Your task to perform on an android device: When is my next appointment? Image 0: 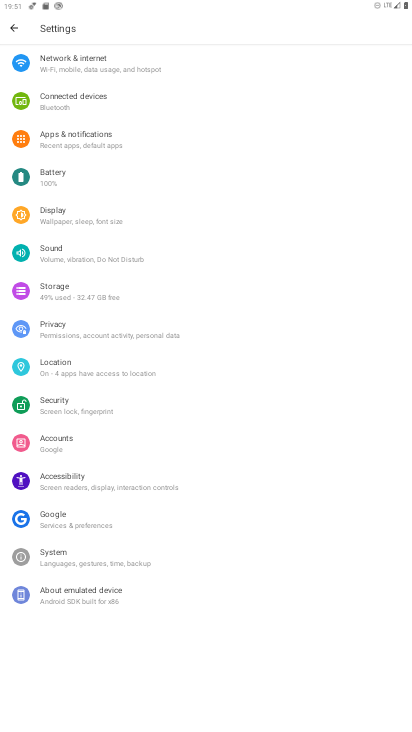
Step 0: press home button
Your task to perform on an android device: When is my next appointment? Image 1: 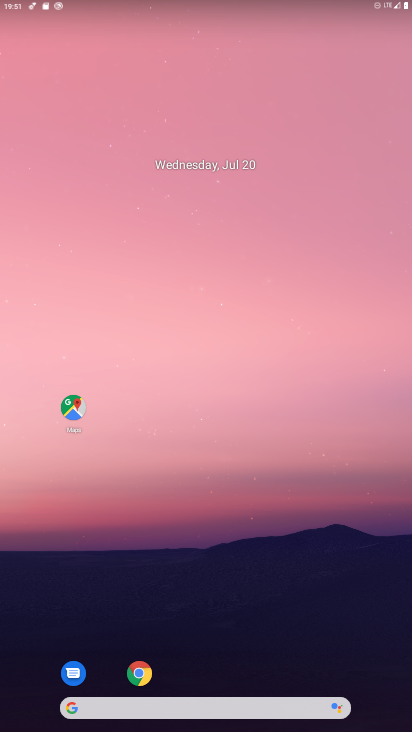
Step 1: drag from (273, 640) to (219, 74)
Your task to perform on an android device: When is my next appointment? Image 2: 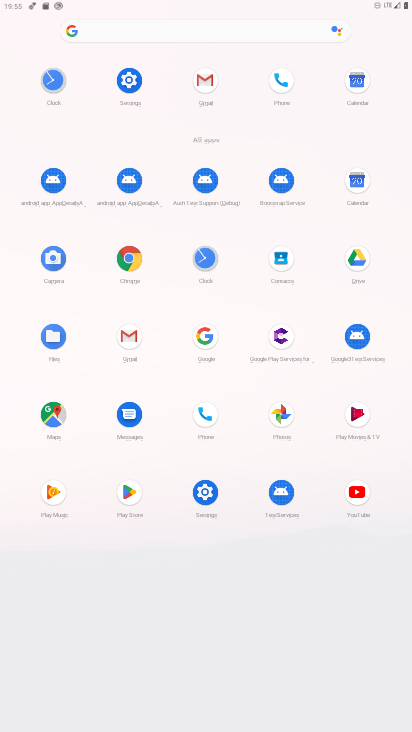
Step 2: click (354, 190)
Your task to perform on an android device: When is my next appointment? Image 3: 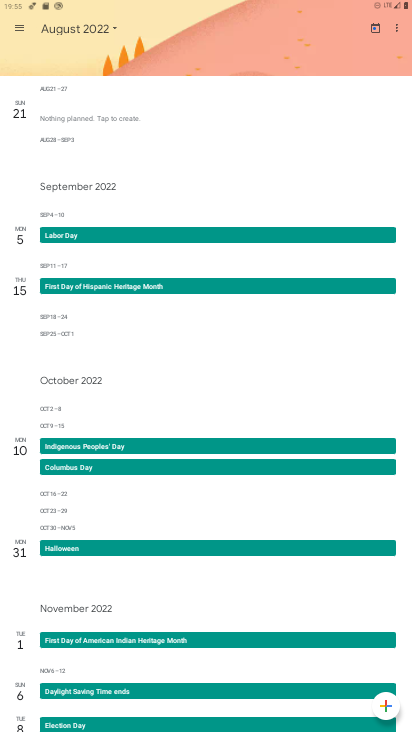
Step 3: click (65, 26)
Your task to perform on an android device: When is my next appointment? Image 4: 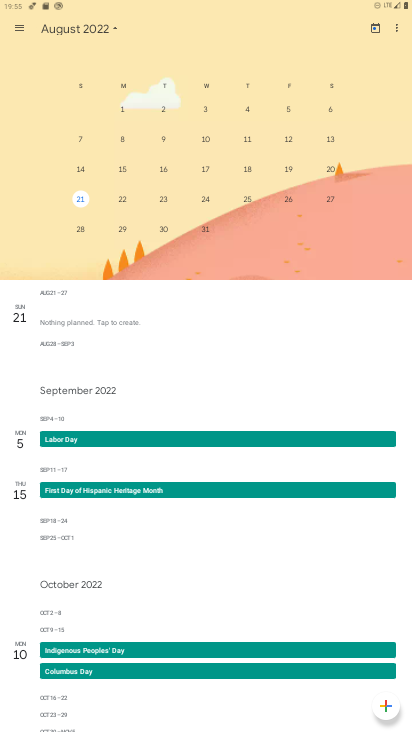
Step 4: task complete